Your task to perform on an android device: Search for a 36" x 48" whiteboard on Home Depot Image 0: 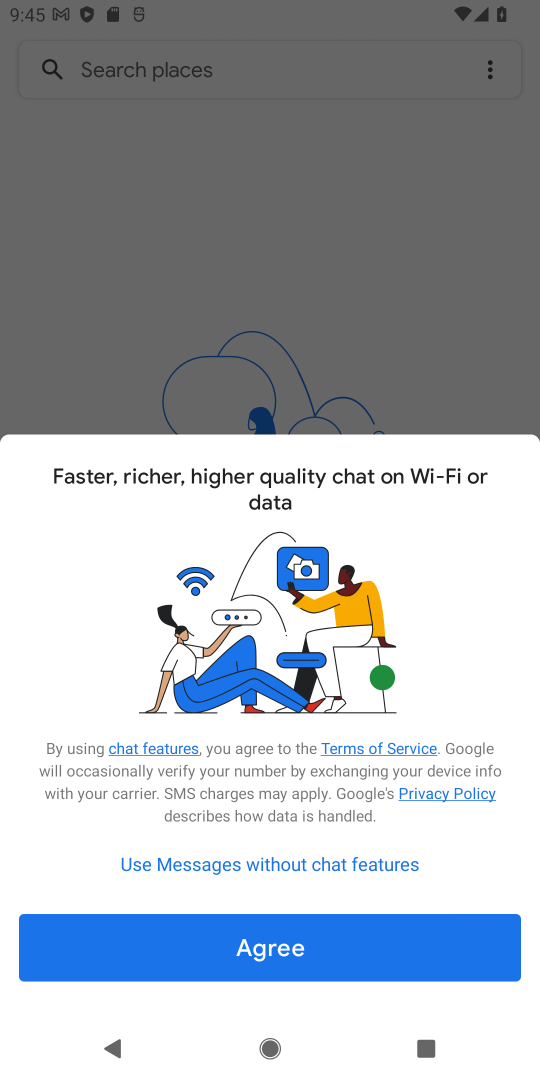
Step 0: press home button
Your task to perform on an android device: Search for a 36" x 48" whiteboard on Home Depot Image 1: 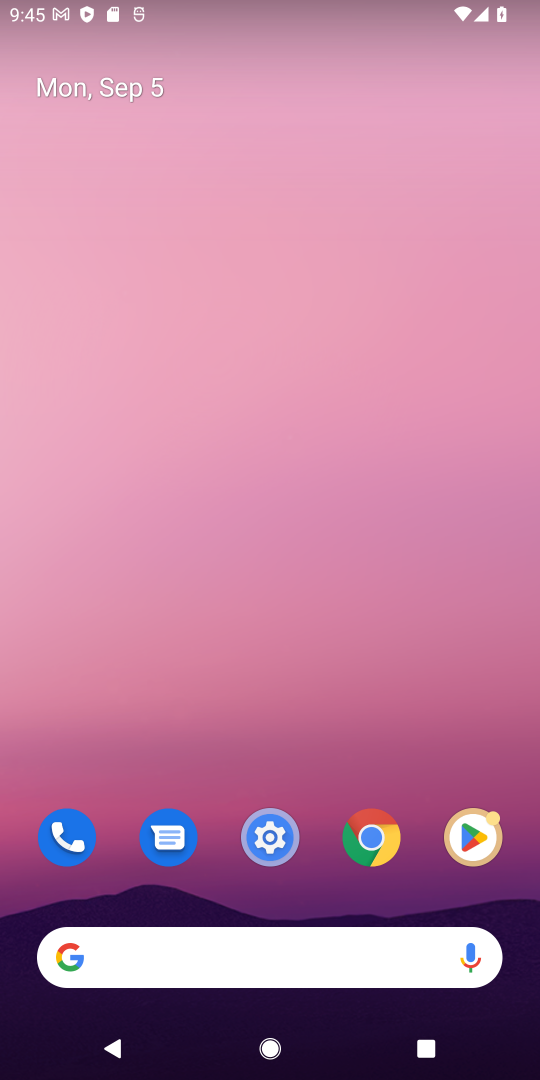
Step 1: drag from (323, 780) to (301, 23)
Your task to perform on an android device: Search for a 36" x 48" whiteboard on Home Depot Image 2: 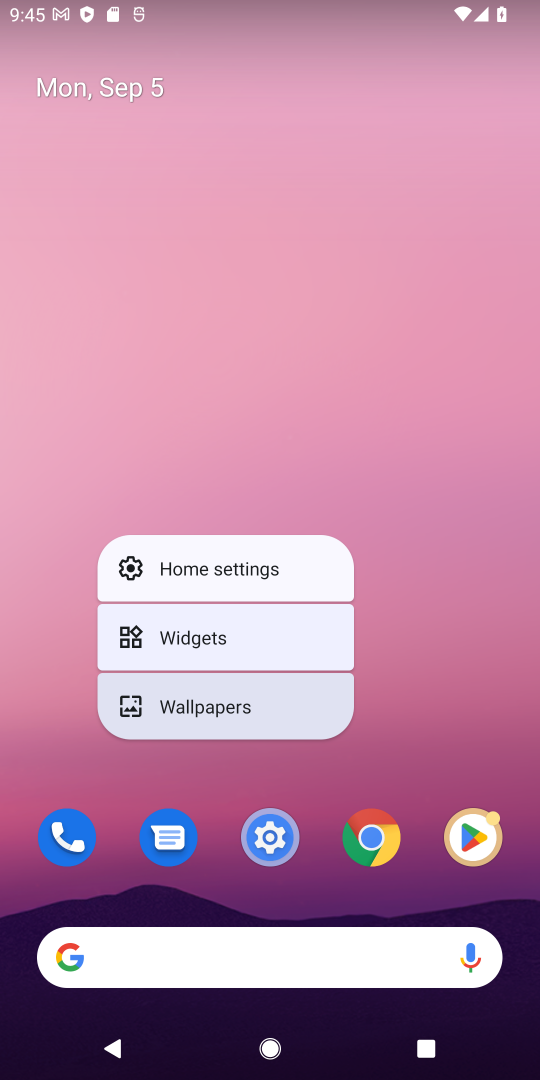
Step 2: click (407, 754)
Your task to perform on an android device: Search for a 36" x 48" whiteboard on Home Depot Image 3: 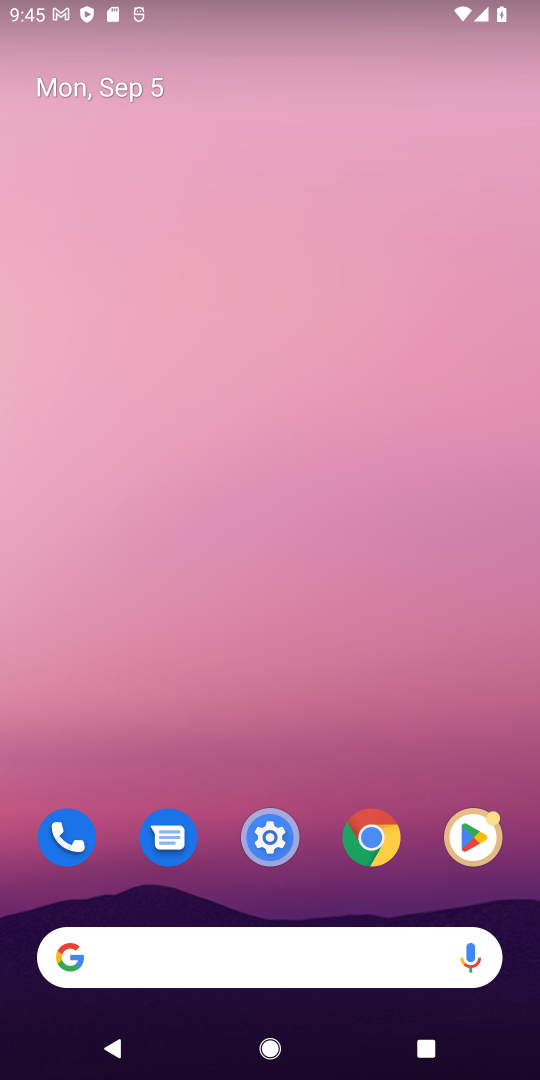
Step 3: drag from (414, 800) to (420, 11)
Your task to perform on an android device: Search for a 36" x 48" whiteboard on Home Depot Image 4: 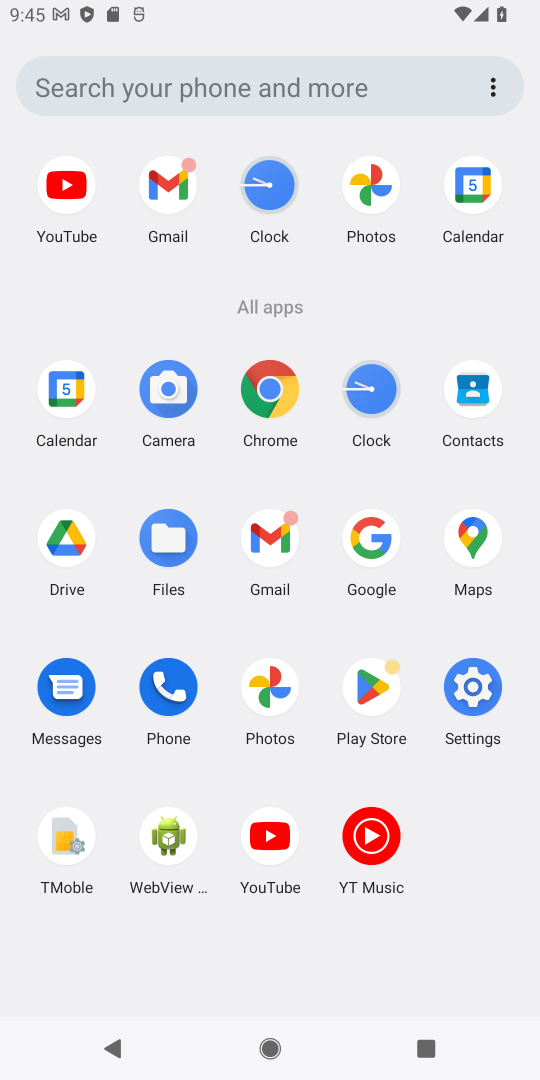
Step 4: click (262, 390)
Your task to perform on an android device: Search for a 36" x 48" whiteboard on Home Depot Image 5: 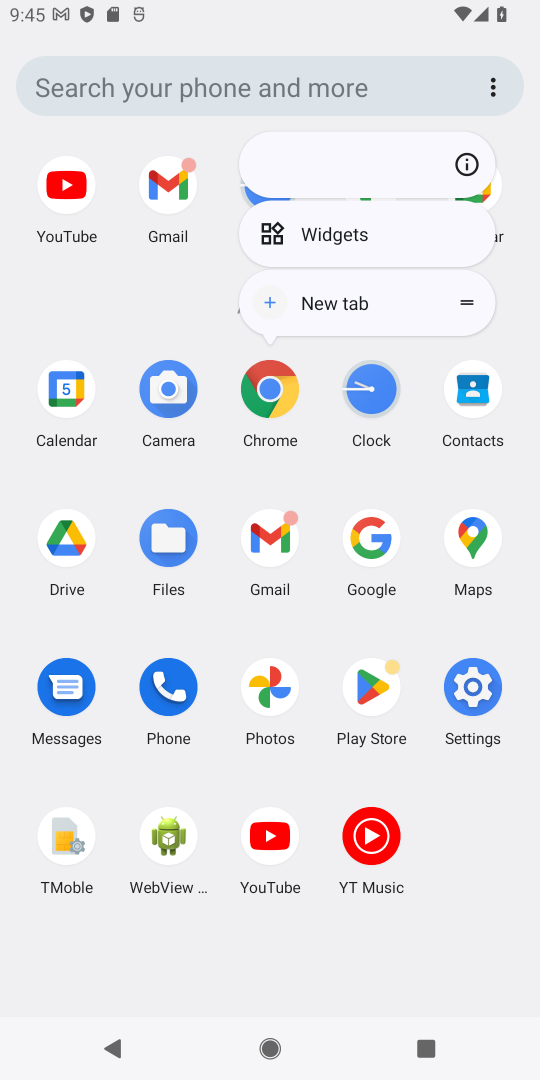
Step 5: click (264, 389)
Your task to perform on an android device: Search for a 36" x 48" whiteboard on Home Depot Image 6: 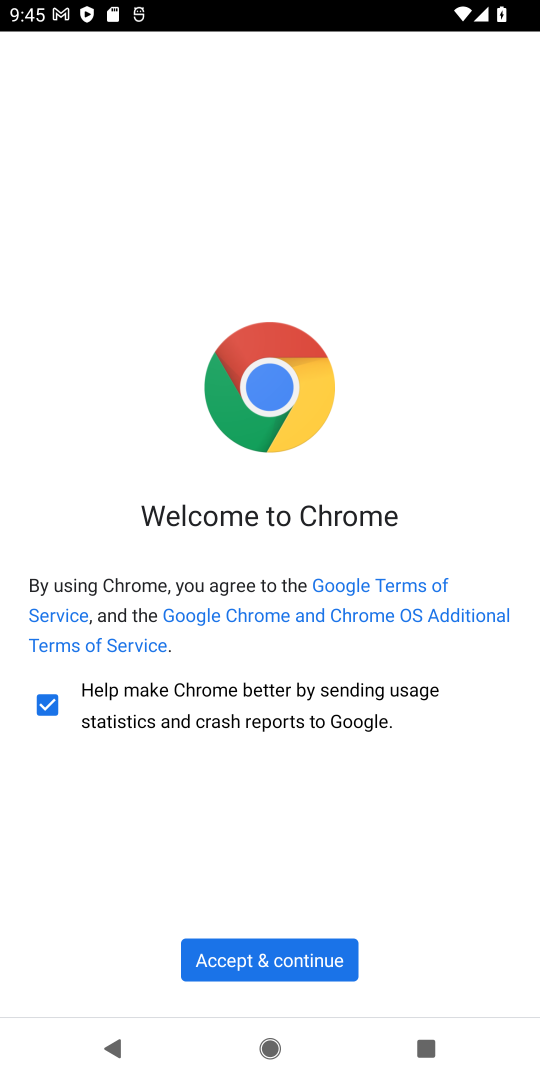
Step 6: click (255, 959)
Your task to perform on an android device: Search for a 36" x 48" whiteboard on Home Depot Image 7: 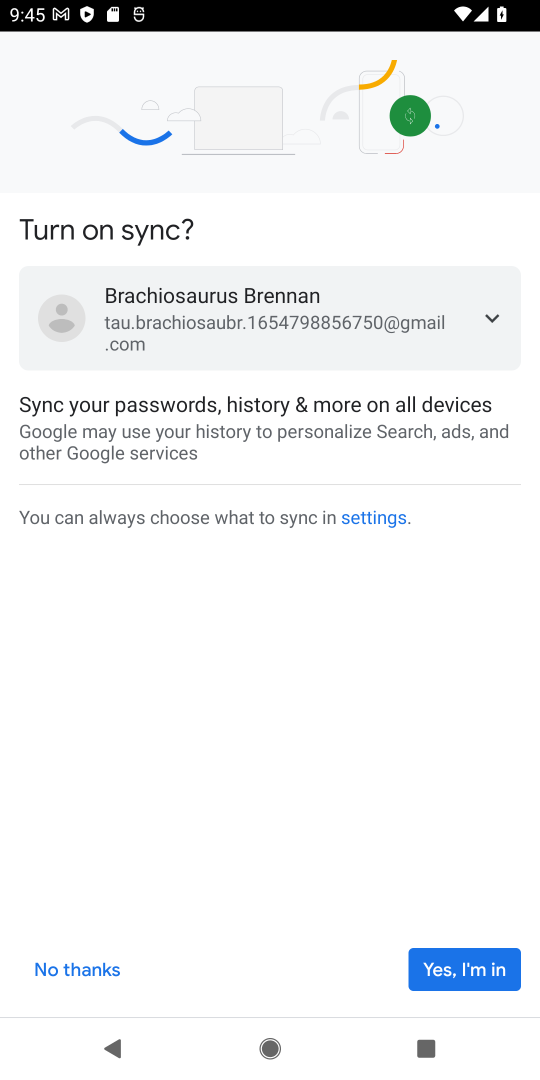
Step 7: click (442, 968)
Your task to perform on an android device: Search for a 36" x 48" whiteboard on Home Depot Image 8: 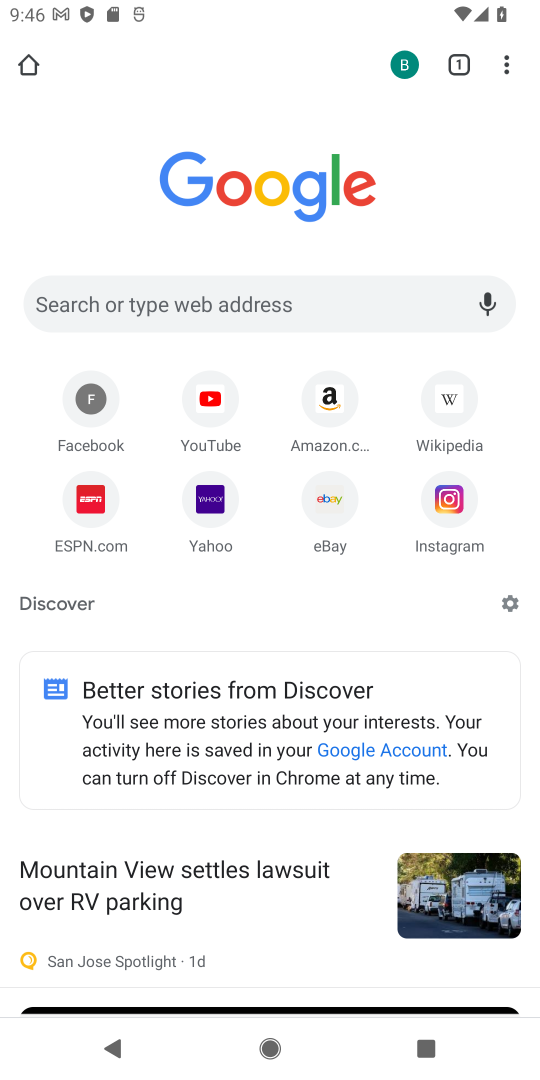
Step 8: click (212, 296)
Your task to perform on an android device: Search for a 36" x 48" whiteboard on Home Depot Image 9: 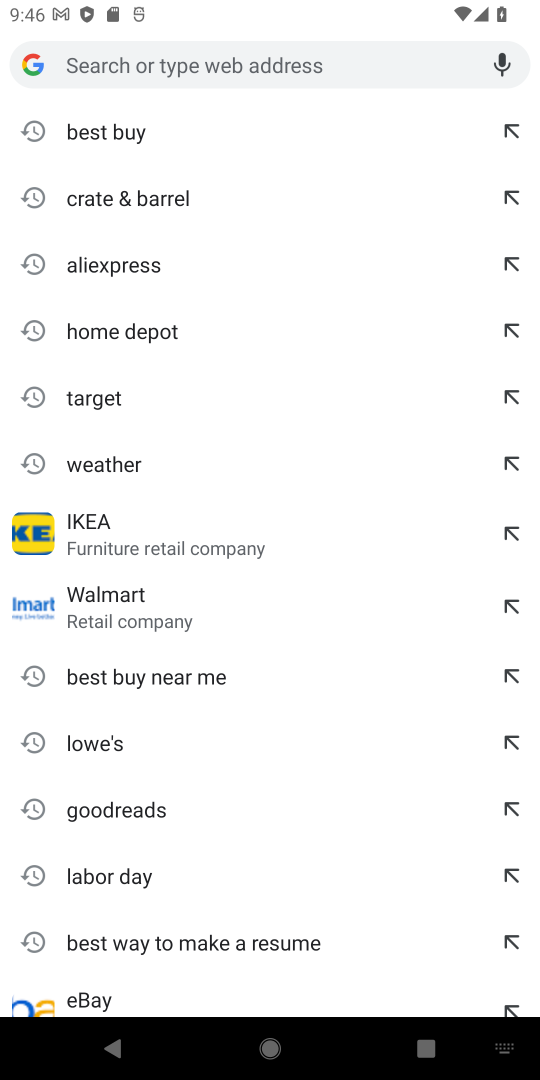
Step 9: type "36" x 48" whiteboard on Home Depot"
Your task to perform on an android device: Search for a 36" x 48" whiteboard on Home Depot Image 10: 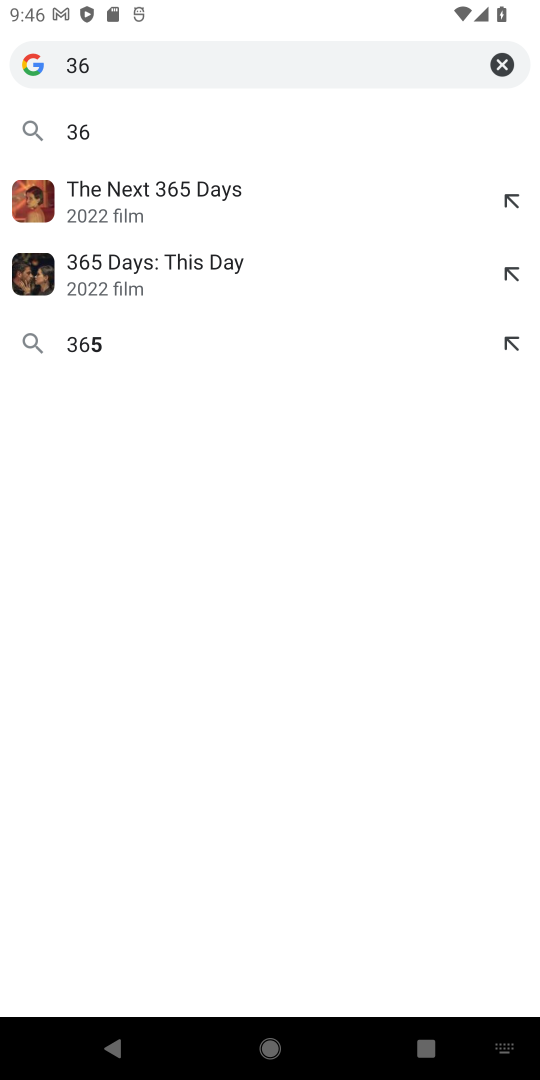
Step 10: type """
Your task to perform on an android device: Search for a 36" x 48" whiteboard on Home Depot Image 11: 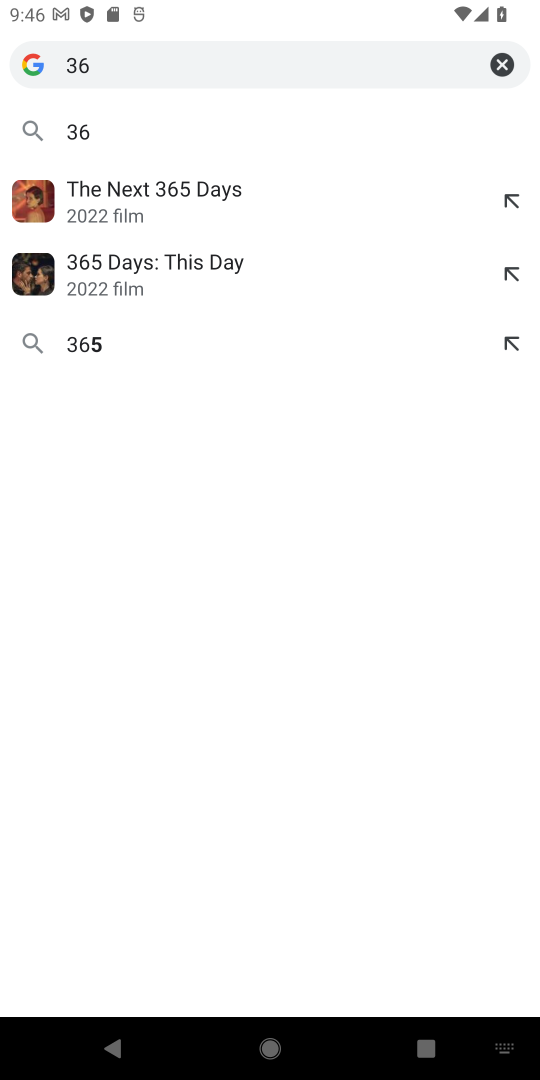
Step 11: click (501, 62)
Your task to perform on an android device: Search for a 36" x 48" whiteboard on Home Depot Image 12: 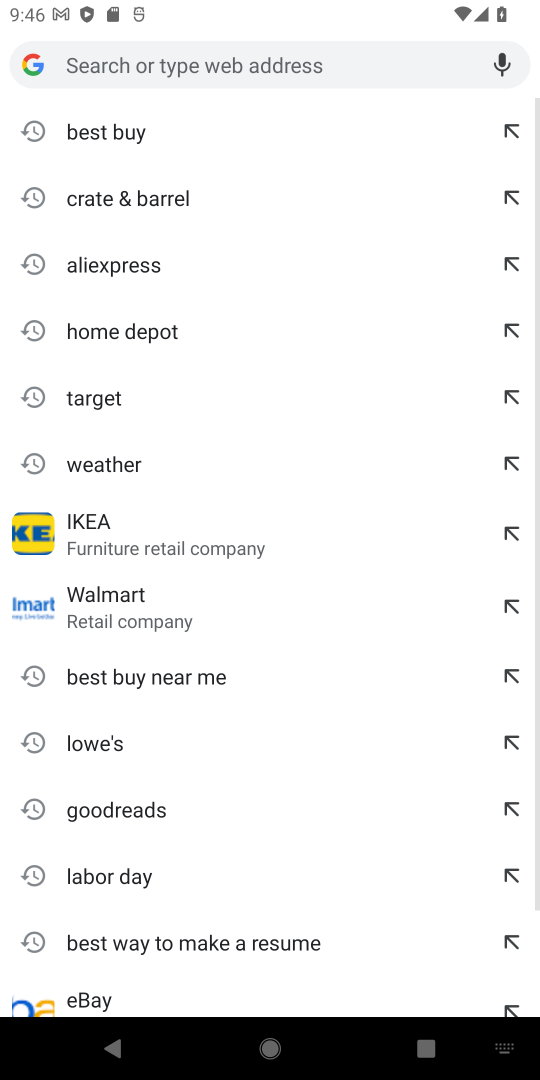
Step 12: click (159, 56)
Your task to perform on an android device: Search for a 36" x 48" whiteboard on Home Depot Image 13: 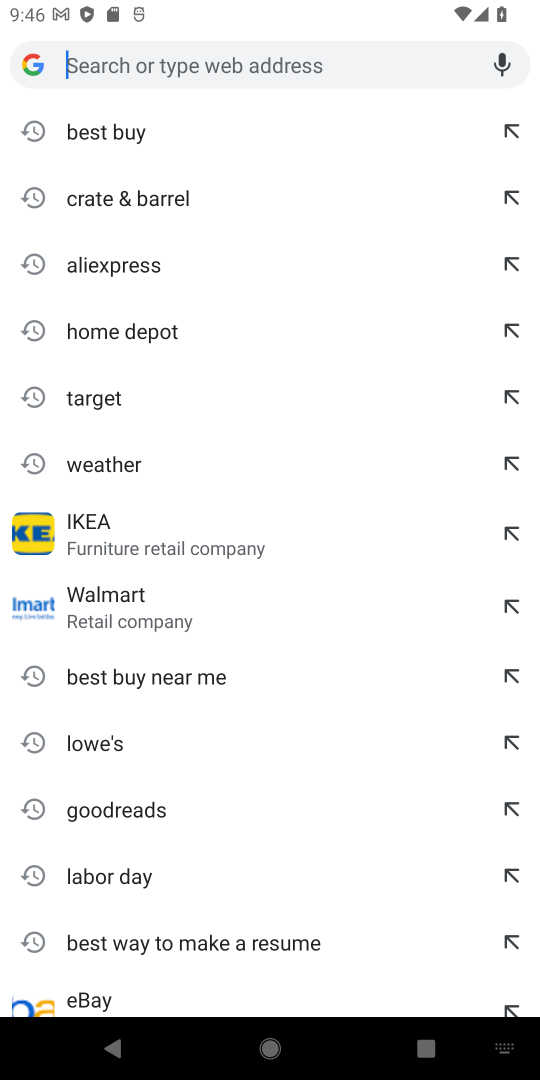
Step 13: type "whiteboard on Home Depot"
Your task to perform on an android device: Search for a 36" x 48" whiteboard on Home Depot Image 14: 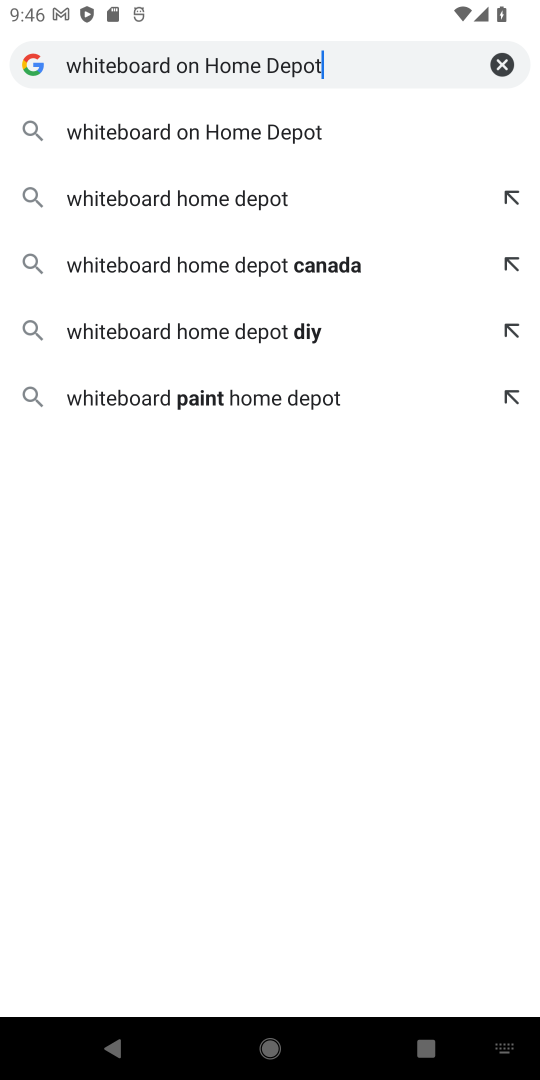
Step 14: click (229, 132)
Your task to perform on an android device: Search for a 36" x 48" whiteboard on Home Depot Image 15: 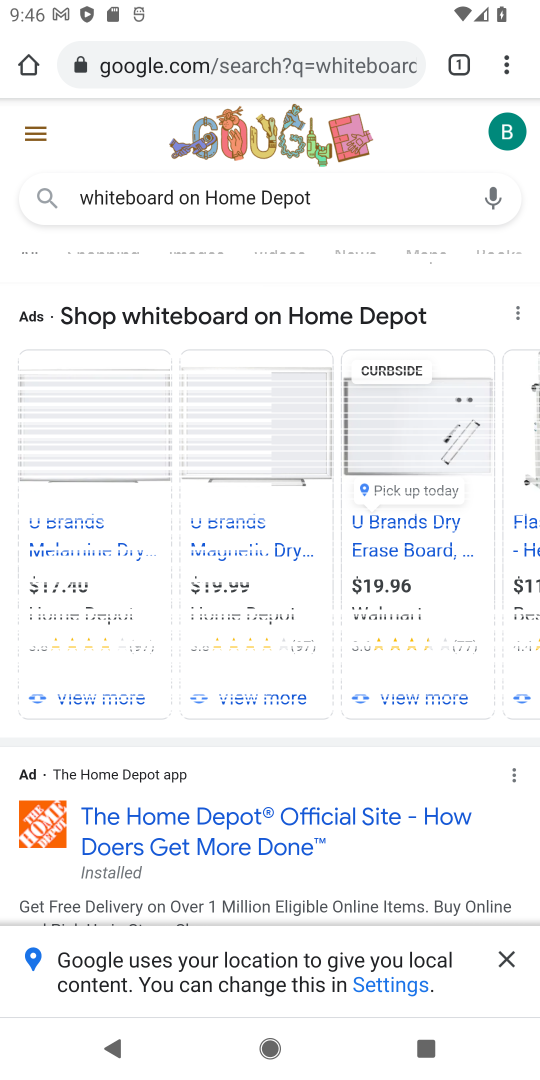
Step 15: drag from (269, 902) to (259, 283)
Your task to perform on an android device: Search for a 36" x 48" whiteboard on Home Depot Image 16: 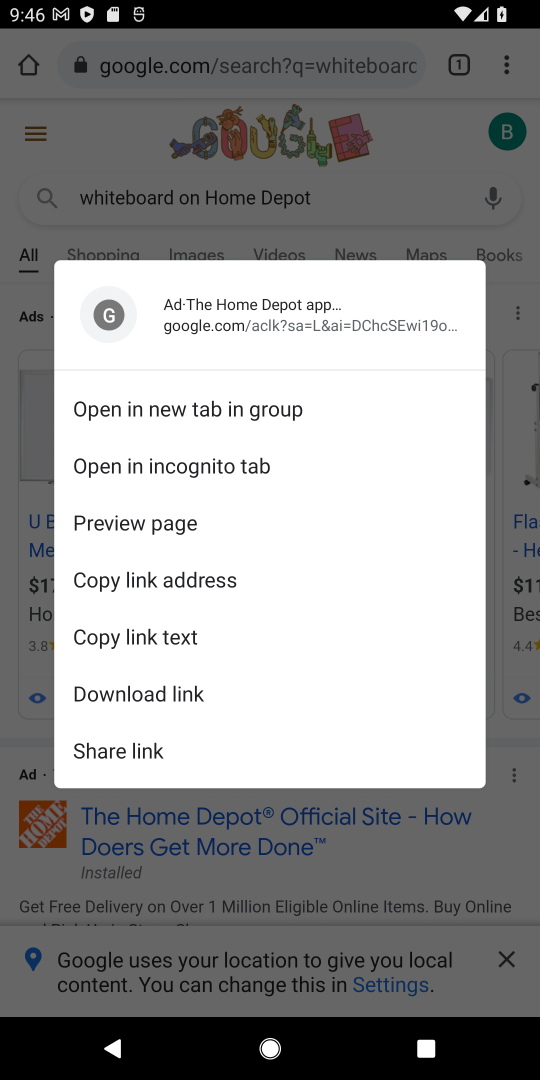
Step 16: click (65, 553)
Your task to perform on an android device: Search for a 36" x 48" whiteboard on Home Depot Image 17: 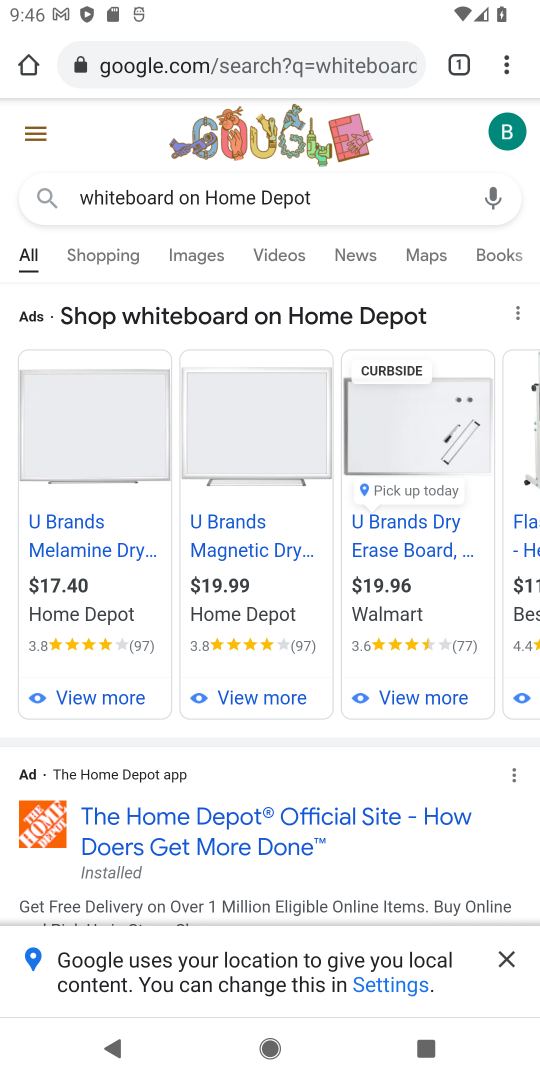
Step 17: click (511, 958)
Your task to perform on an android device: Search for a 36" x 48" whiteboard on Home Depot Image 18: 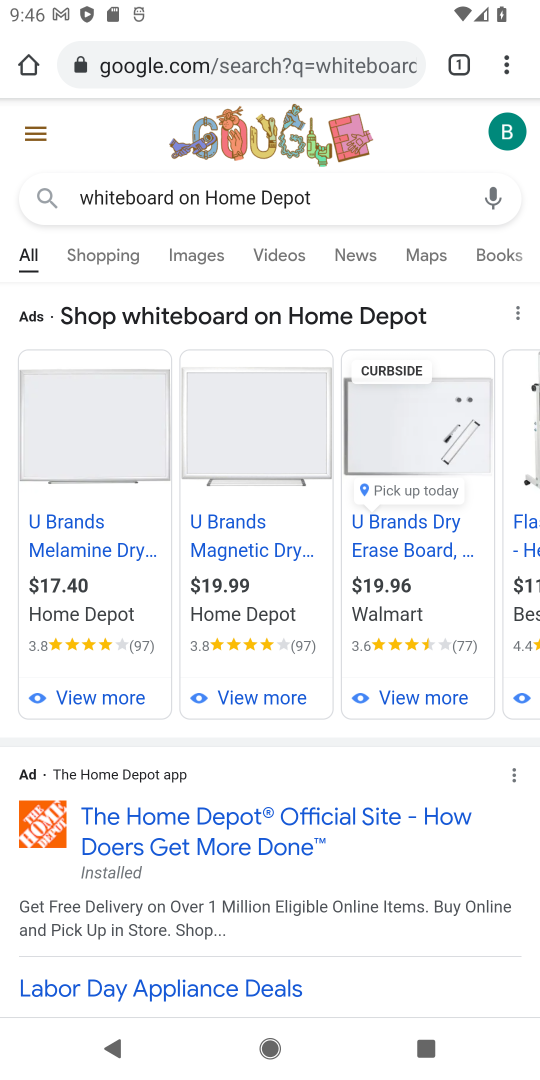
Step 18: task complete